Your task to perform on an android device: turn on wifi Image 0: 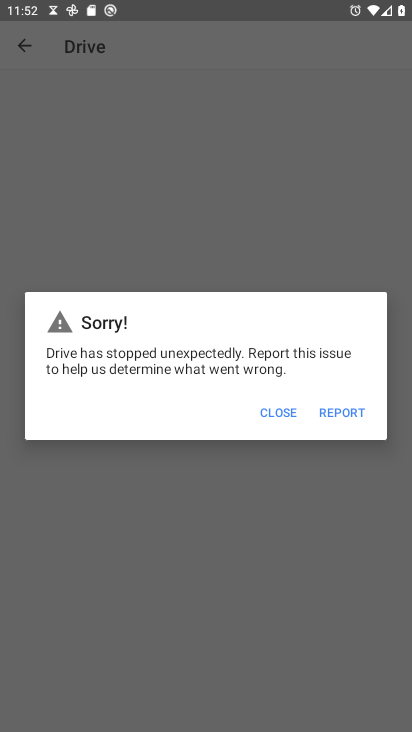
Step 0: press home button
Your task to perform on an android device: turn on wifi Image 1: 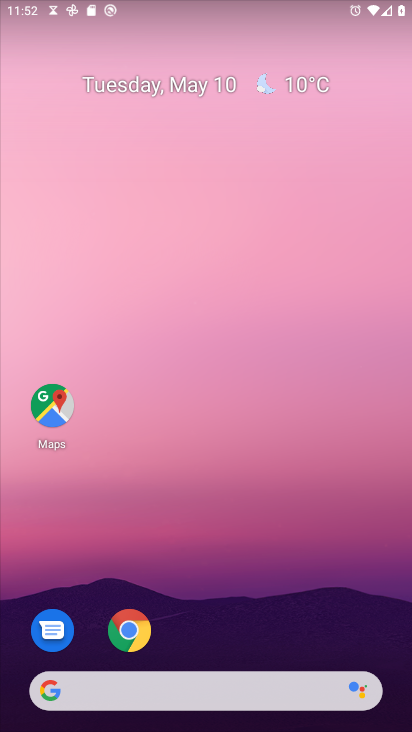
Step 1: drag from (287, 507) to (287, 50)
Your task to perform on an android device: turn on wifi Image 2: 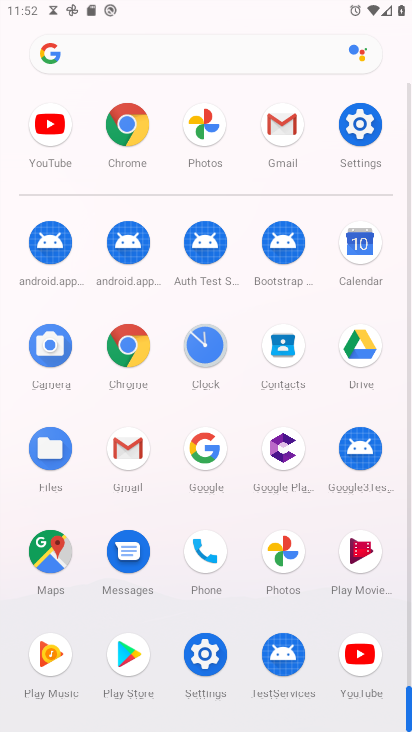
Step 2: click (351, 118)
Your task to perform on an android device: turn on wifi Image 3: 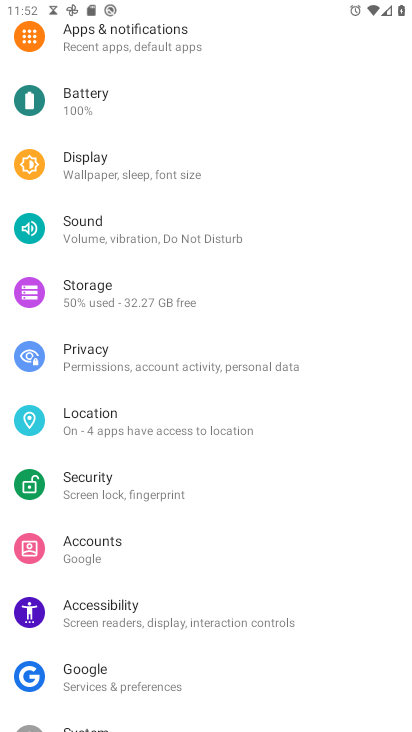
Step 3: drag from (213, 120) to (216, 533)
Your task to perform on an android device: turn on wifi Image 4: 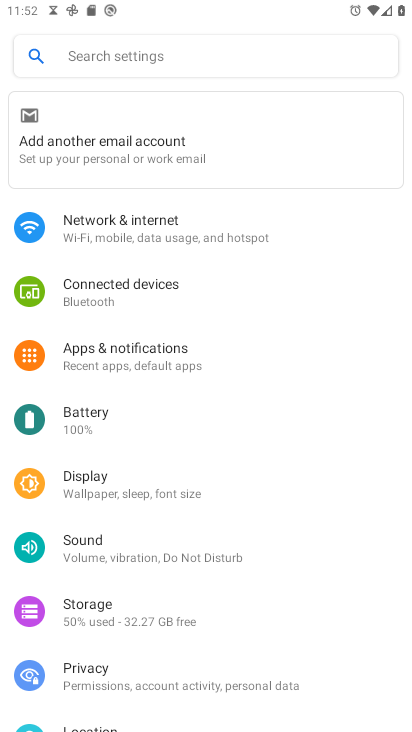
Step 4: click (157, 223)
Your task to perform on an android device: turn on wifi Image 5: 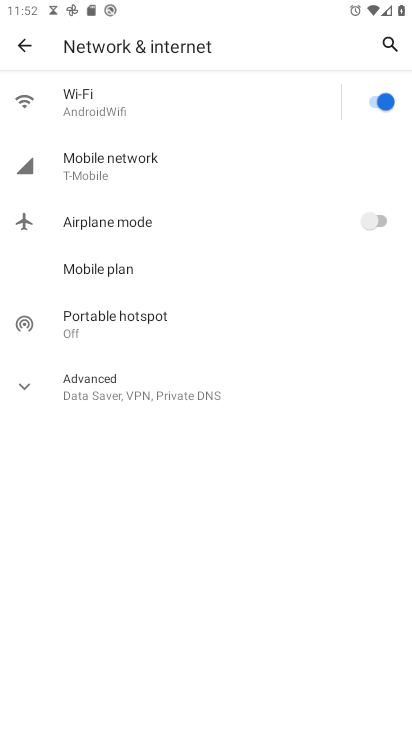
Step 5: task complete